Your task to perform on an android device: turn off location history Image 0: 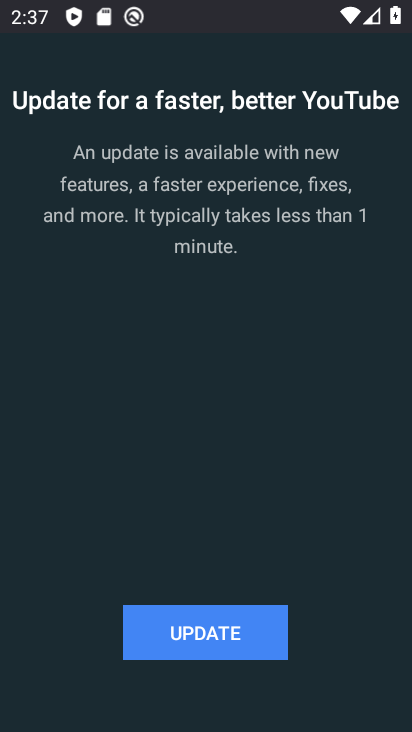
Step 0: press home button
Your task to perform on an android device: turn off location history Image 1: 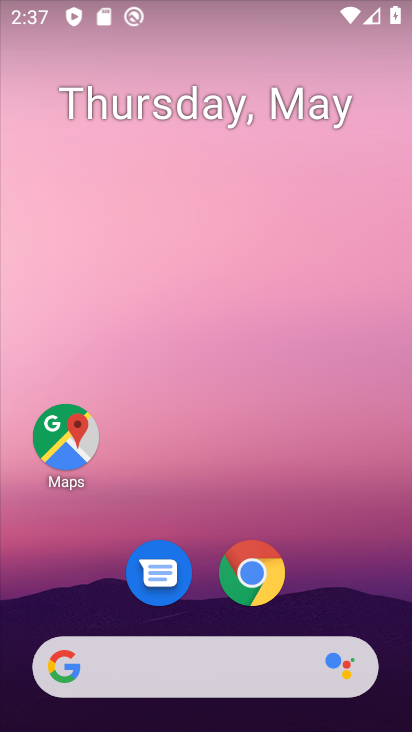
Step 1: drag from (138, 649) to (203, 155)
Your task to perform on an android device: turn off location history Image 2: 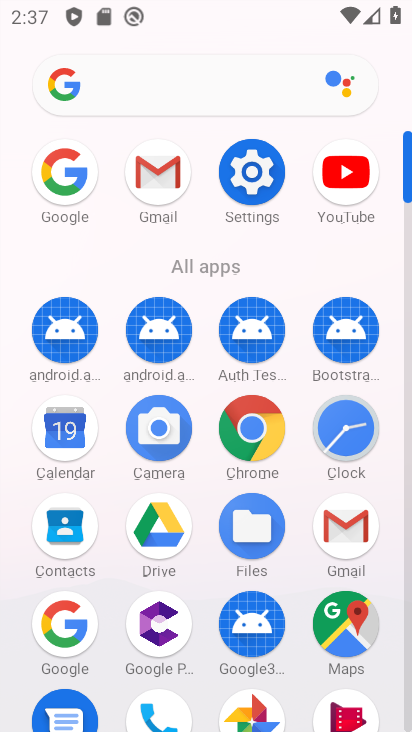
Step 2: click (259, 174)
Your task to perform on an android device: turn off location history Image 3: 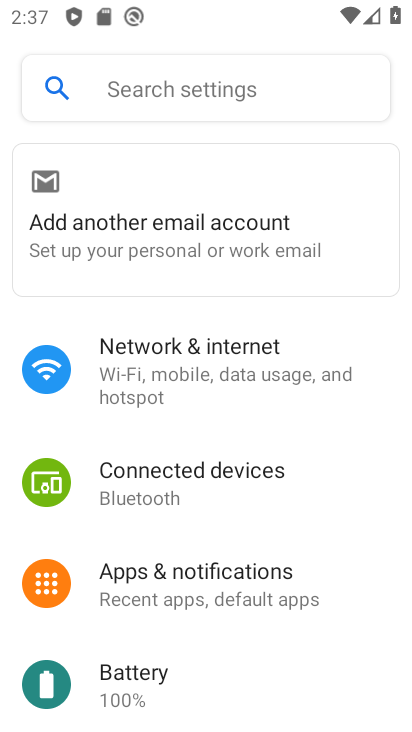
Step 3: drag from (152, 654) to (184, 269)
Your task to perform on an android device: turn off location history Image 4: 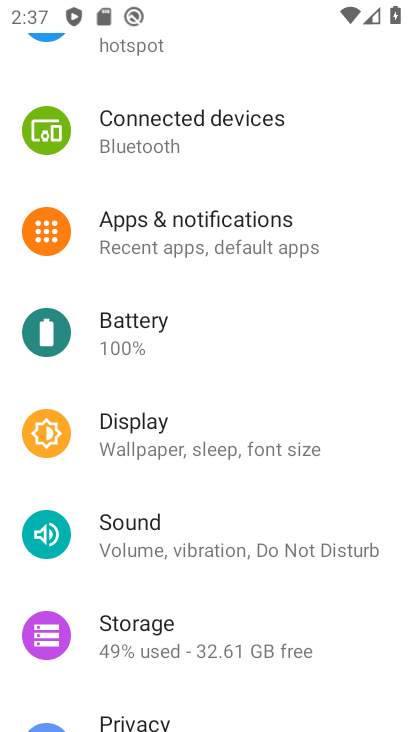
Step 4: drag from (176, 648) to (185, 321)
Your task to perform on an android device: turn off location history Image 5: 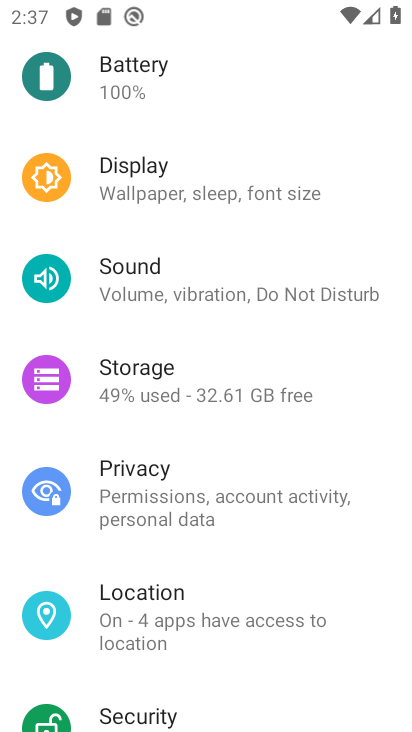
Step 5: click (161, 608)
Your task to perform on an android device: turn off location history Image 6: 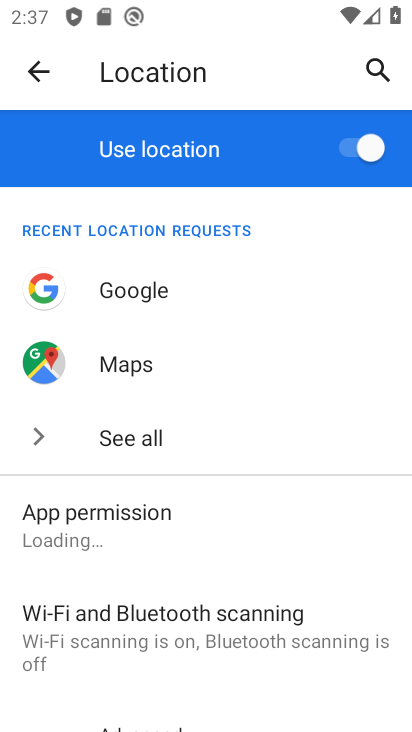
Step 6: drag from (110, 659) to (135, 310)
Your task to perform on an android device: turn off location history Image 7: 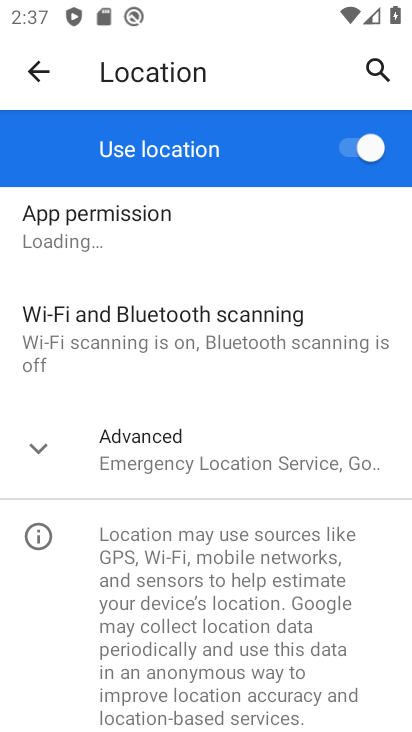
Step 7: click (135, 445)
Your task to perform on an android device: turn off location history Image 8: 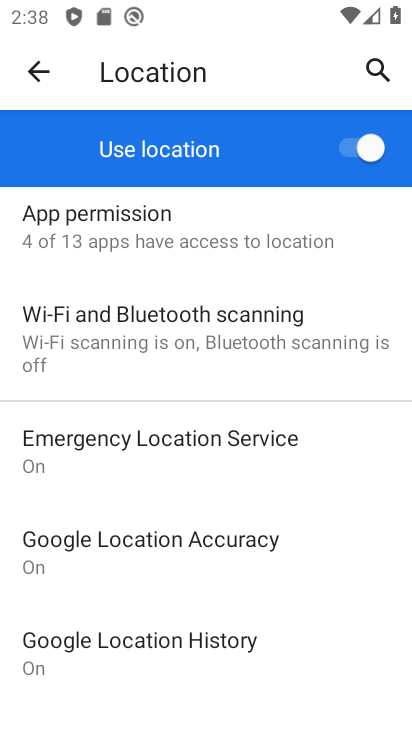
Step 8: click (115, 639)
Your task to perform on an android device: turn off location history Image 9: 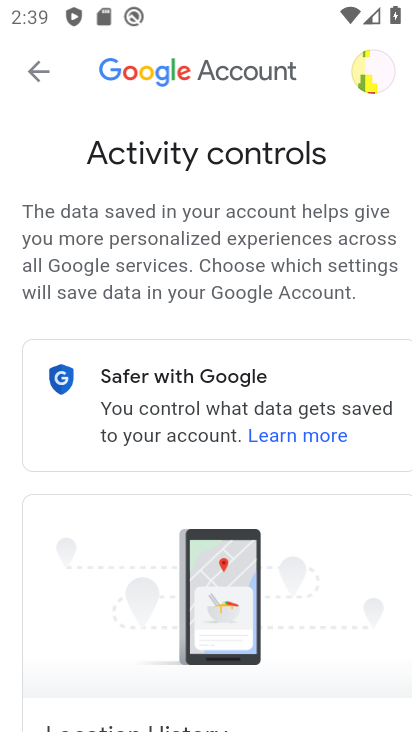
Step 9: drag from (308, 693) to (358, 141)
Your task to perform on an android device: turn off location history Image 10: 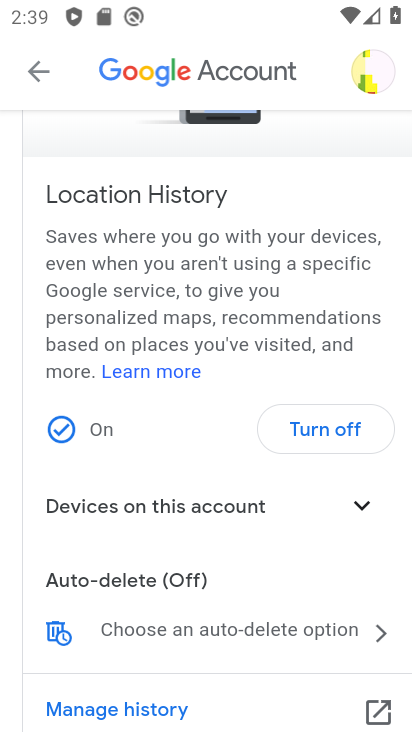
Step 10: click (339, 430)
Your task to perform on an android device: turn off location history Image 11: 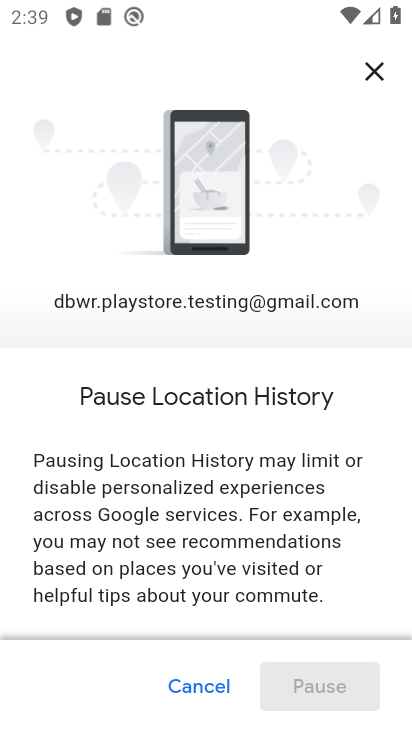
Step 11: drag from (298, 586) to (283, 147)
Your task to perform on an android device: turn off location history Image 12: 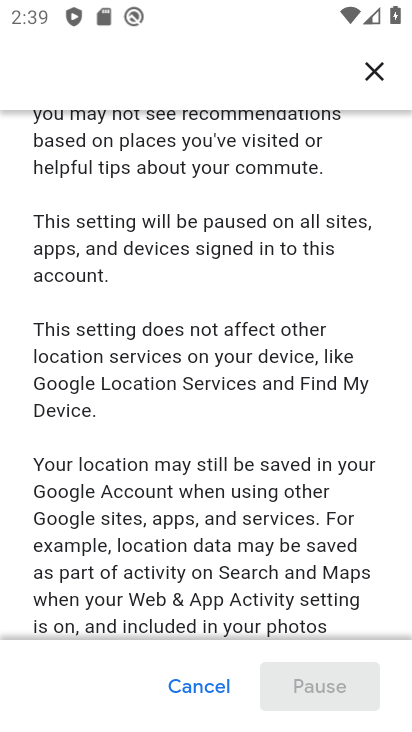
Step 12: drag from (293, 583) to (309, 250)
Your task to perform on an android device: turn off location history Image 13: 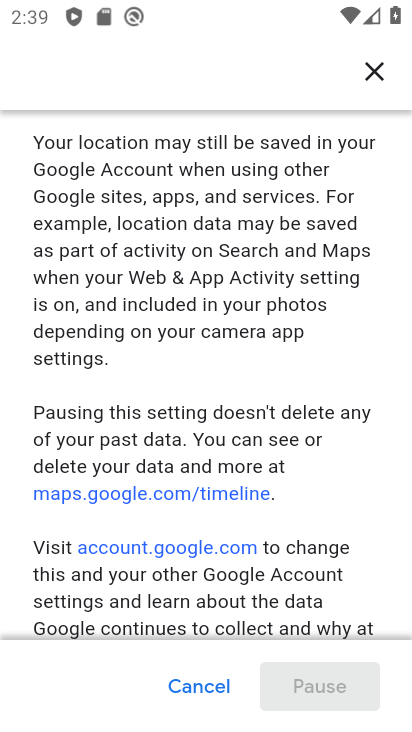
Step 13: drag from (279, 606) to (279, 306)
Your task to perform on an android device: turn off location history Image 14: 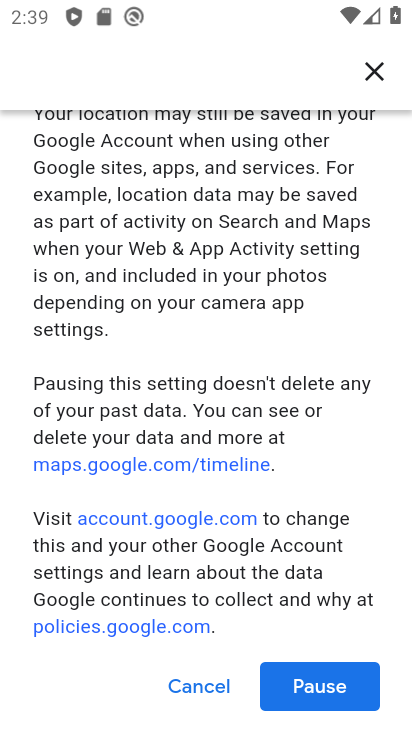
Step 14: click (316, 685)
Your task to perform on an android device: turn off location history Image 15: 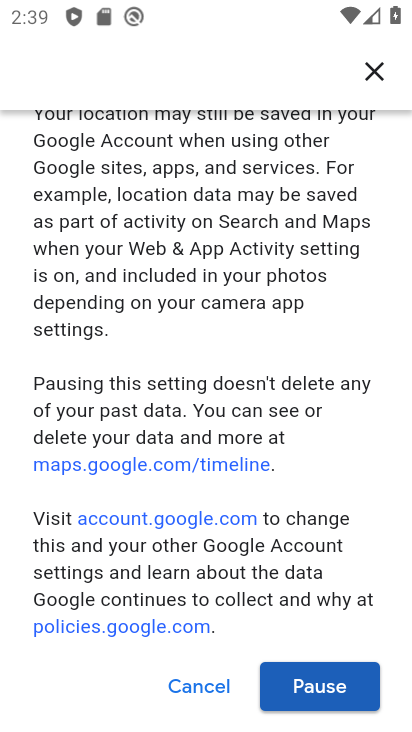
Step 15: click (347, 695)
Your task to perform on an android device: turn off location history Image 16: 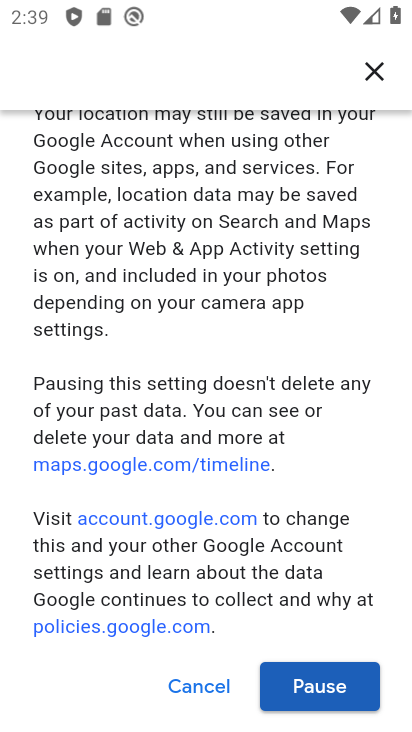
Step 16: click (339, 693)
Your task to perform on an android device: turn off location history Image 17: 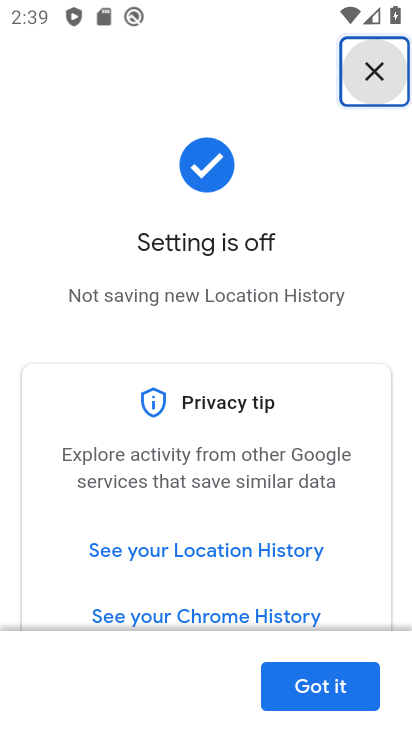
Step 17: click (341, 690)
Your task to perform on an android device: turn off location history Image 18: 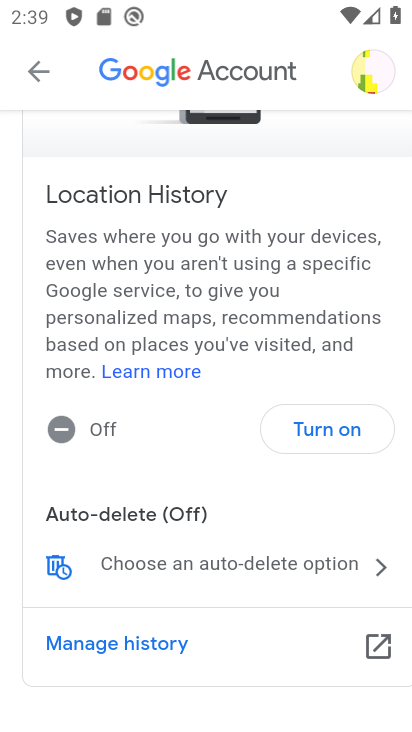
Step 18: task complete